Your task to perform on an android device: open wifi settings Image 0: 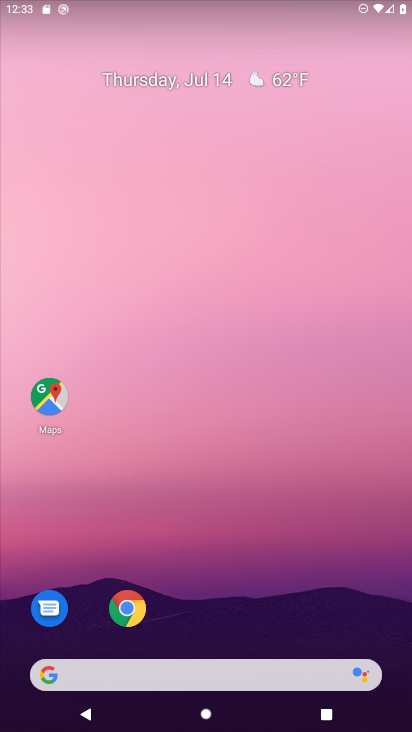
Step 0: drag from (243, 608) to (217, 6)
Your task to perform on an android device: open wifi settings Image 1: 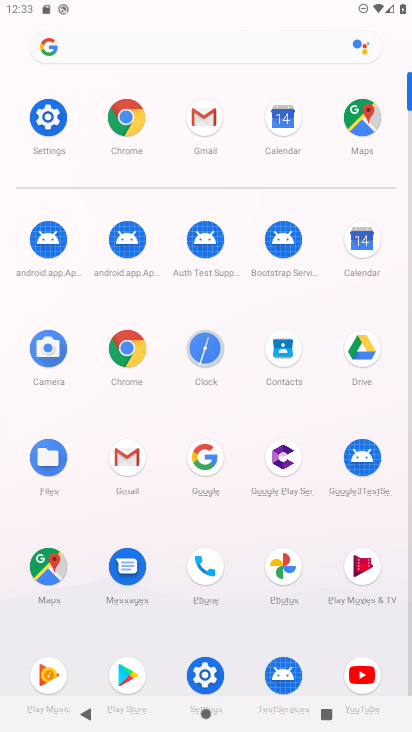
Step 1: click (48, 122)
Your task to perform on an android device: open wifi settings Image 2: 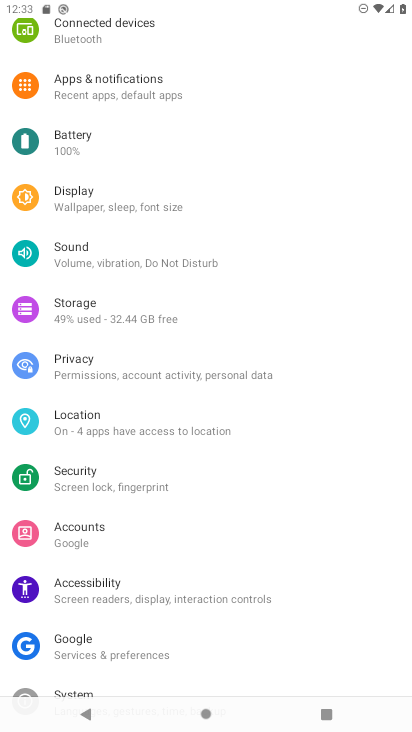
Step 2: drag from (204, 88) to (224, 528)
Your task to perform on an android device: open wifi settings Image 3: 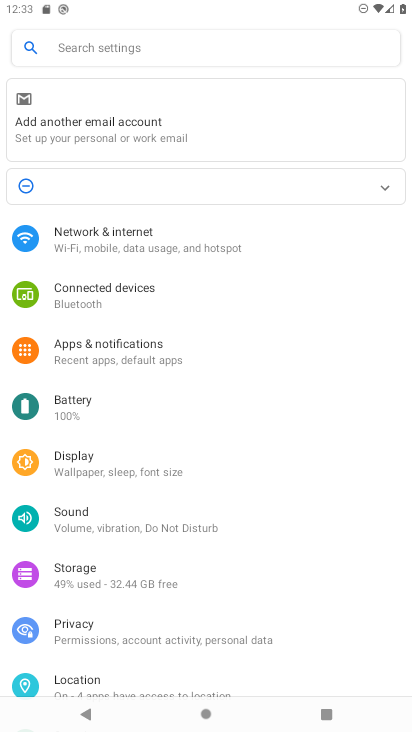
Step 3: click (107, 242)
Your task to perform on an android device: open wifi settings Image 4: 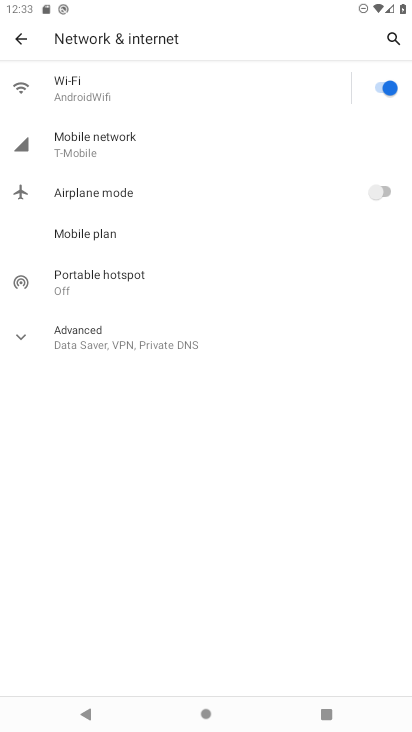
Step 4: click (76, 90)
Your task to perform on an android device: open wifi settings Image 5: 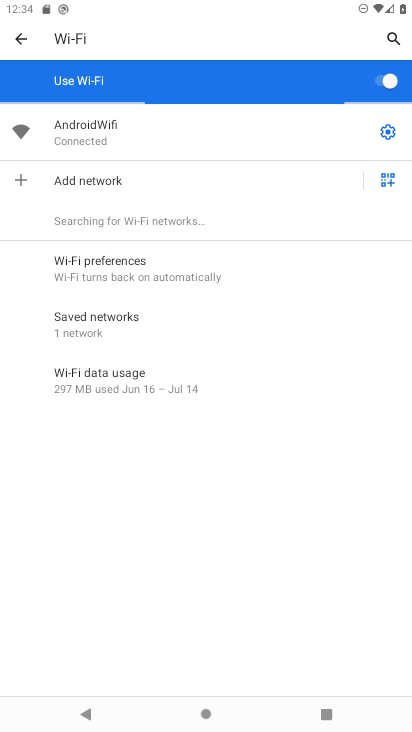
Step 5: task complete